Your task to perform on an android device: turn off wifi Image 0: 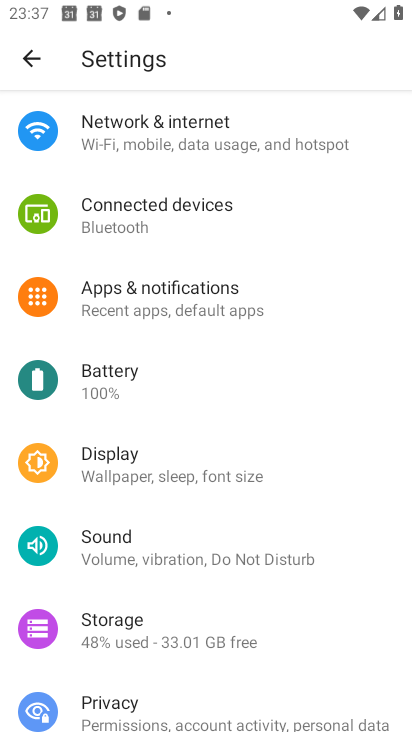
Step 0: drag from (277, 212) to (283, 413)
Your task to perform on an android device: turn off wifi Image 1: 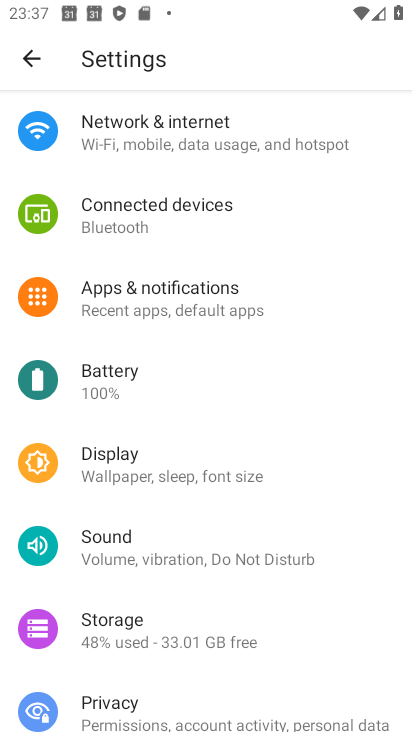
Step 1: click (121, 144)
Your task to perform on an android device: turn off wifi Image 2: 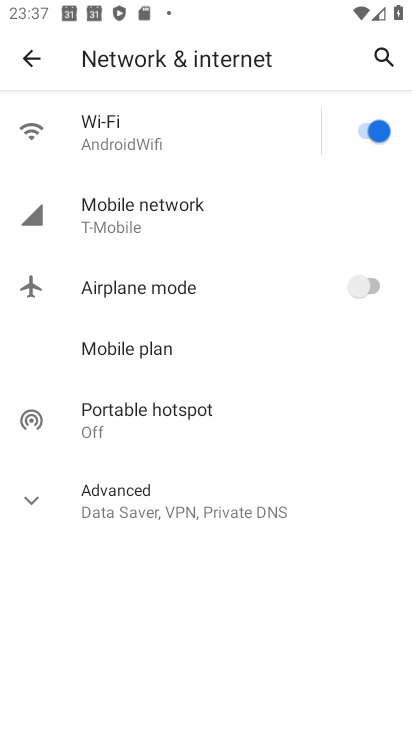
Step 2: click (363, 130)
Your task to perform on an android device: turn off wifi Image 3: 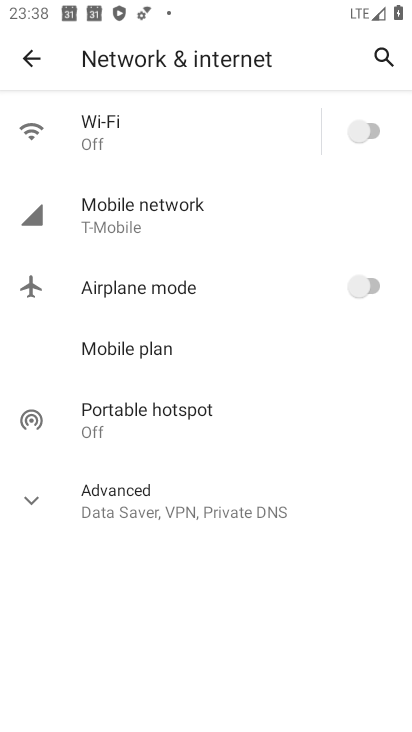
Step 3: task complete